Your task to perform on an android device: change notification settings in the gmail app Image 0: 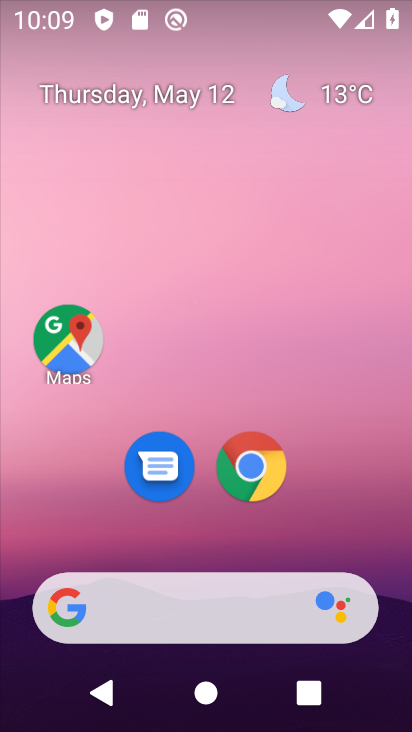
Step 0: drag from (215, 490) to (249, 69)
Your task to perform on an android device: change notification settings in the gmail app Image 1: 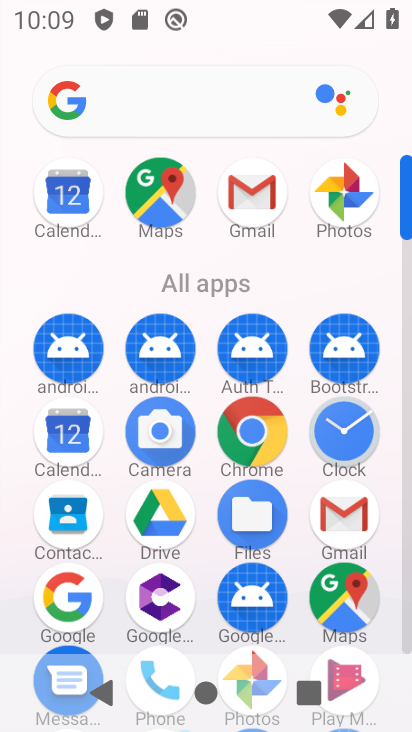
Step 1: click (260, 176)
Your task to perform on an android device: change notification settings in the gmail app Image 2: 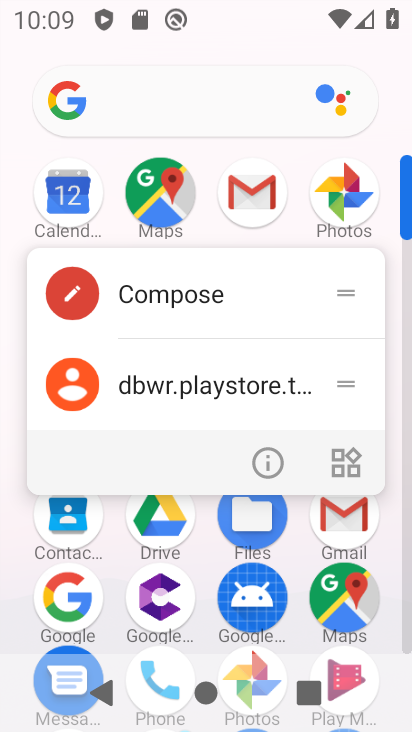
Step 2: click (271, 460)
Your task to perform on an android device: change notification settings in the gmail app Image 3: 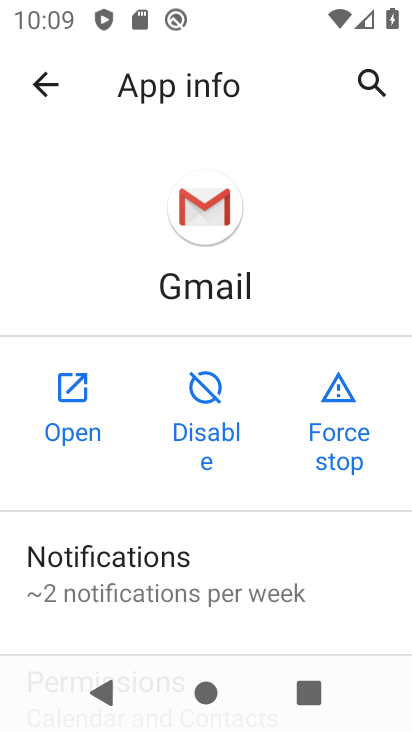
Step 3: click (117, 576)
Your task to perform on an android device: change notification settings in the gmail app Image 4: 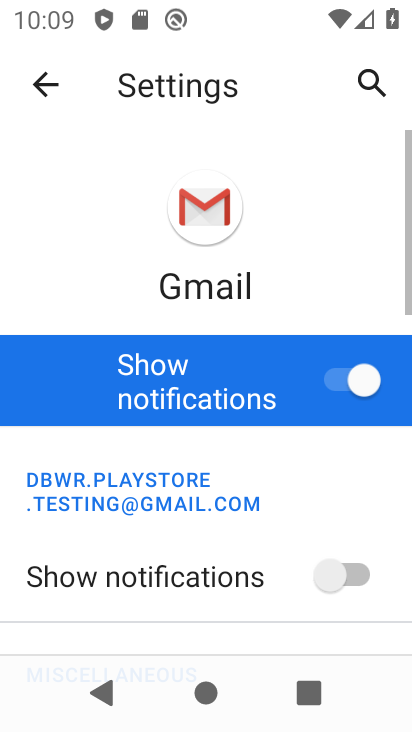
Step 4: drag from (164, 562) to (184, 239)
Your task to perform on an android device: change notification settings in the gmail app Image 5: 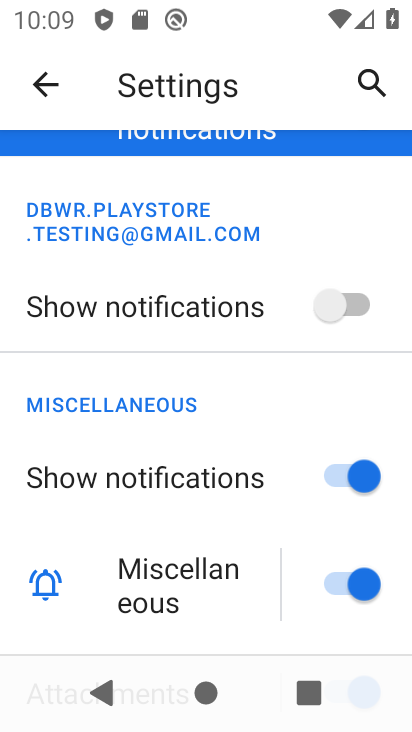
Step 5: click (332, 308)
Your task to perform on an android device: change notification settings in the gmail app Image 6: 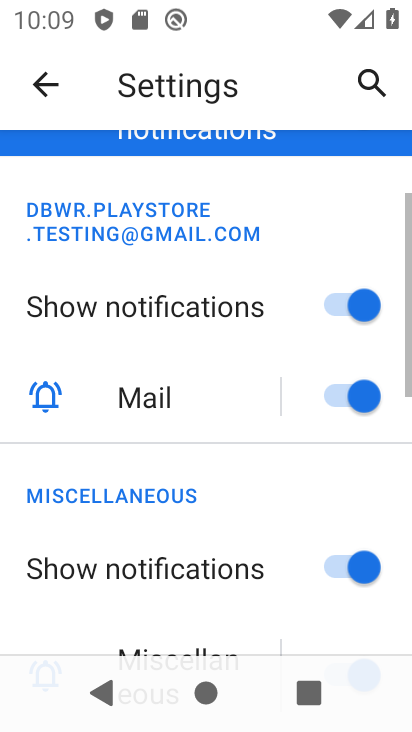
Step 6: task complete